Your task to perform on an android device: Open sound settings Image 0: 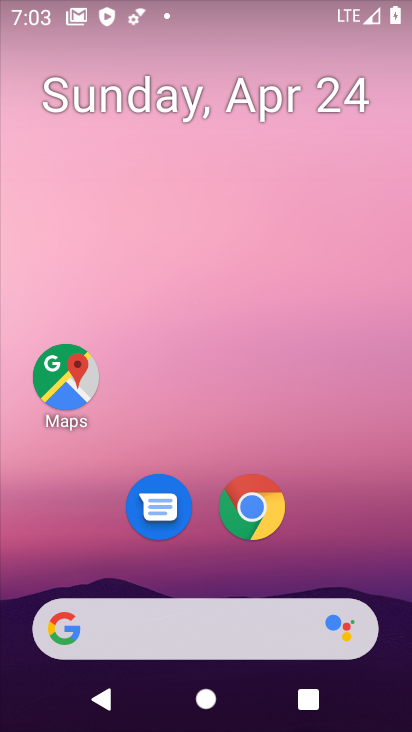
Step 0: drag from (311, 287) to (303, 32)
Your task to perform on an android device: Open sound settings Image 1: 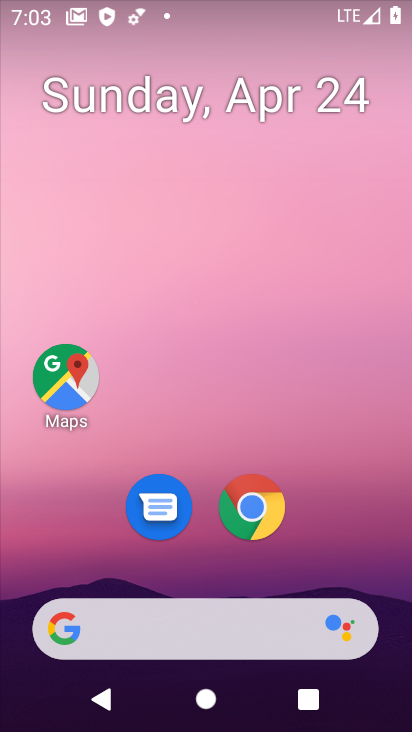
Step 1: drag from (332, 502) to (308, 58)
Your task to perform on an android device: Open sound settings Image 2: 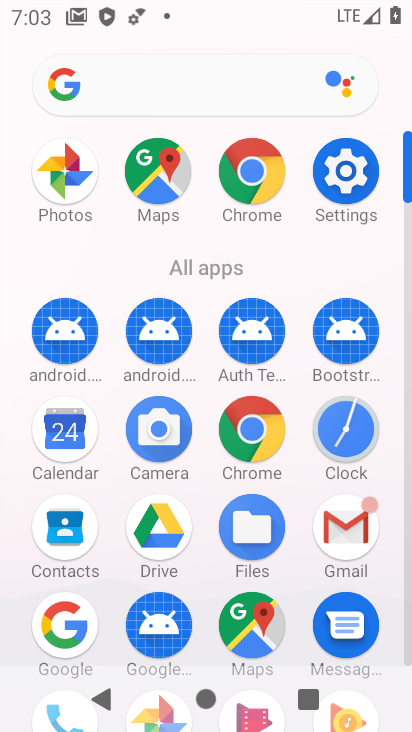
Step 2: click (356, 173)
Your task to perform on an android device: Open sound settings Image 3: 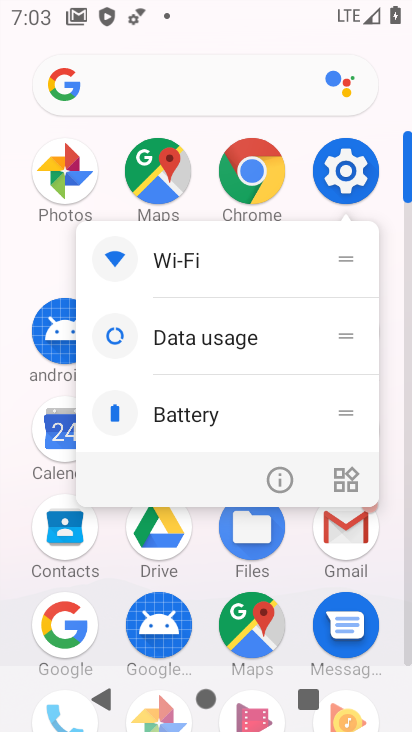
Step 3: click (356, 173)
Your task to perform on an android device: Open sound settings Image 4: 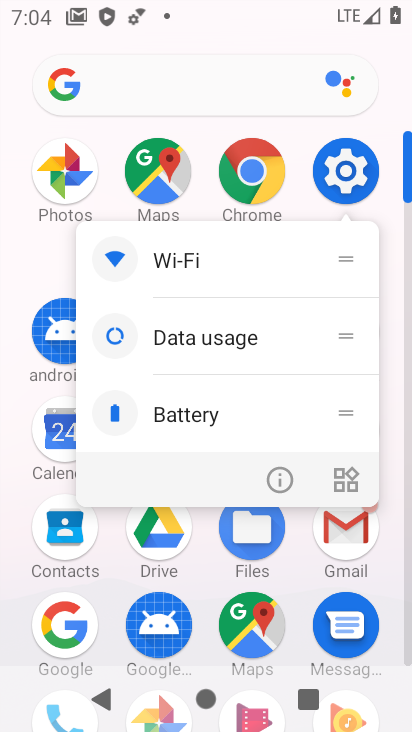
Step 4: click (356, 173)
Your task to perform on an android device: Open sound settings Image 5: 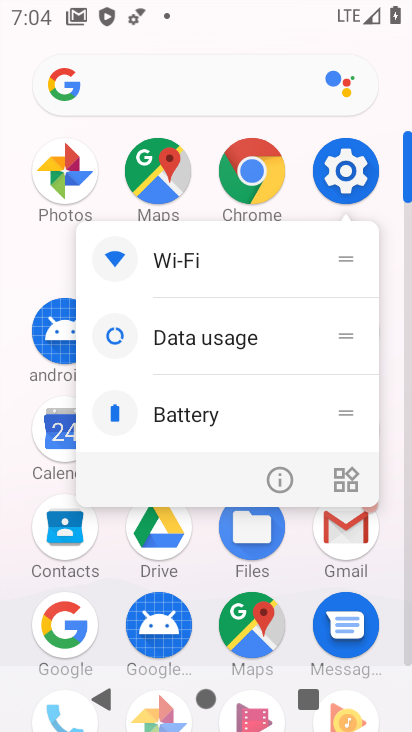
Step 5: click (356, 173)
Your task to perform on an android device: Open sound settings Image 6: 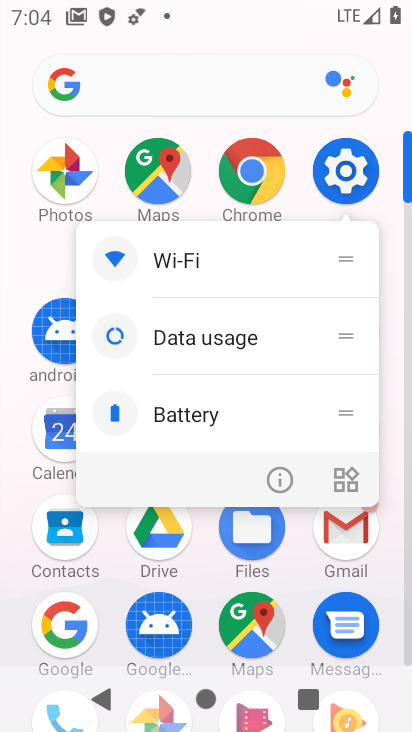
Step 6: click (356, 173)
Your task to perform on an android device: Open sound settings Image 7: 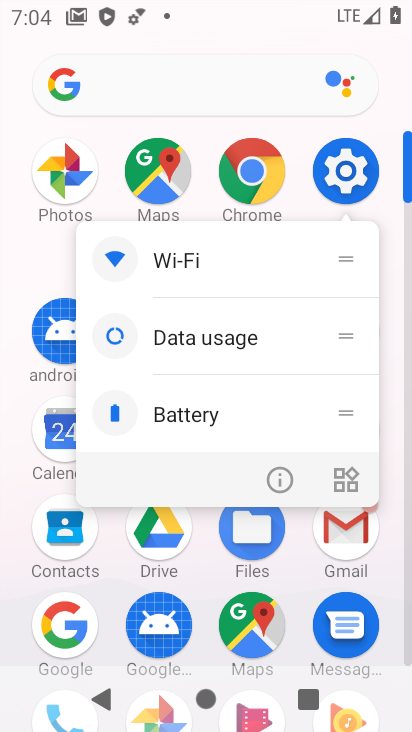
Step 7: click (346, 182)
Your task to perform on an android device: Open sound settings Image 8: 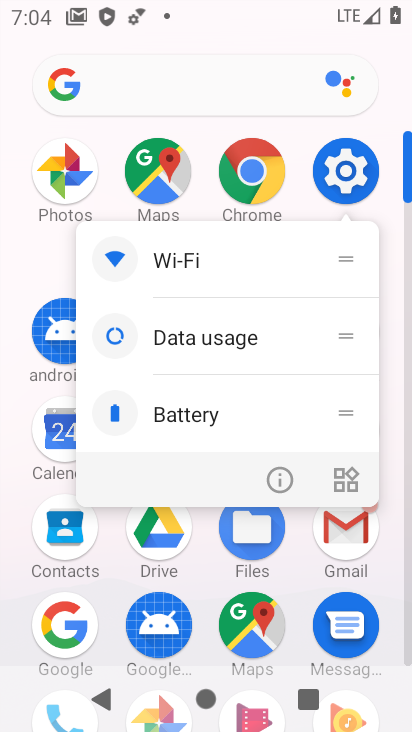
Step 8: click (346, 182)
Your task to perform on an android device: Open sound settings Image 9: 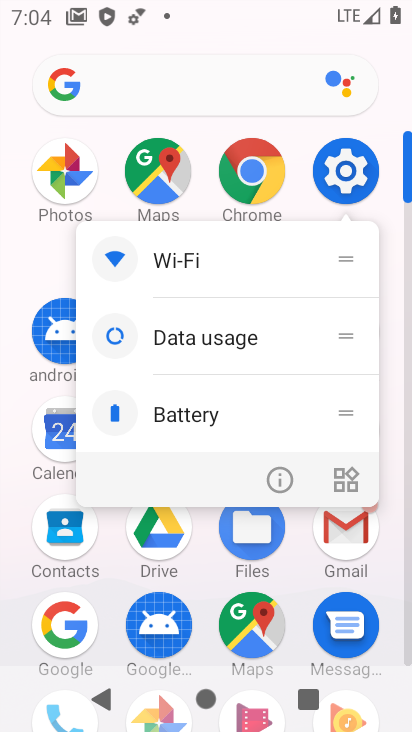
Step 9: click (346, 182)
Your task to perform on an android device: Open sound settings Image 10: 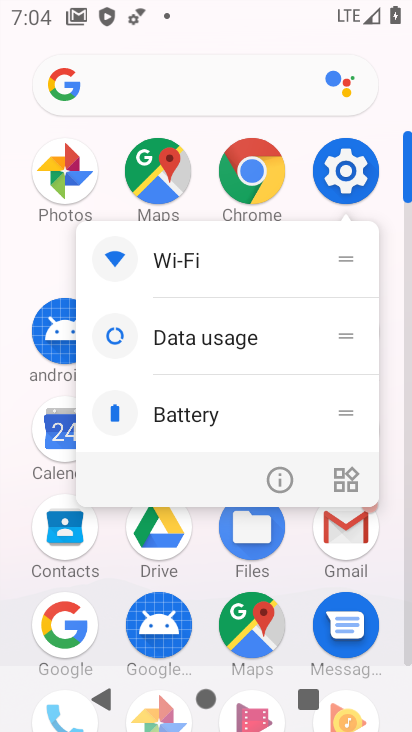
Step 10: click (346, 182)
Your task to perform on an android device: Open sound settings Image 11: 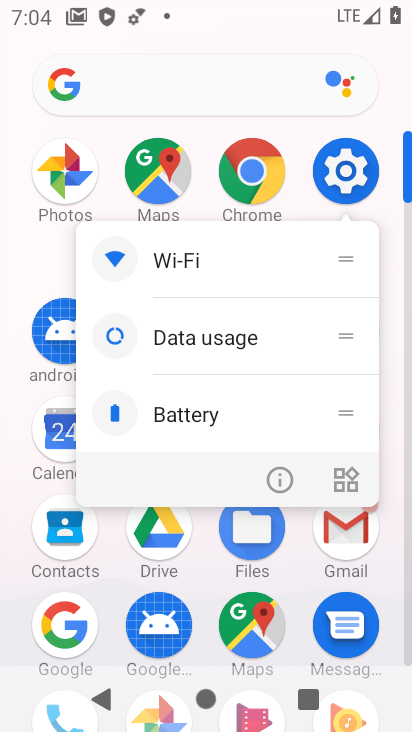
Step 11: click (346, 182)
Your task to perform on an android device: Open sound settings Image 12: 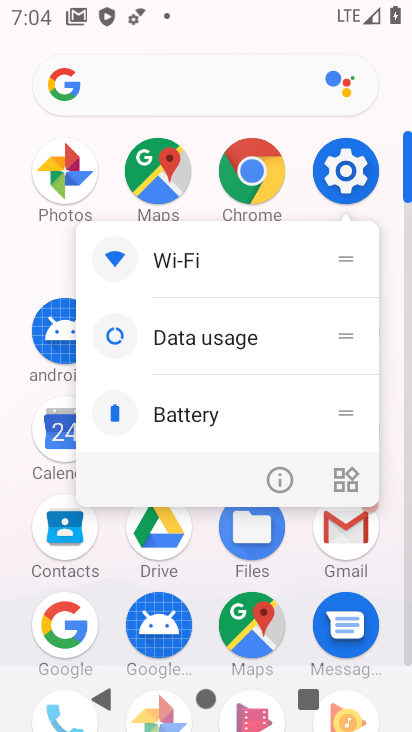
Step 12: click (346, 182)
Your task to perform on an android device: Open sound settings Image 13: 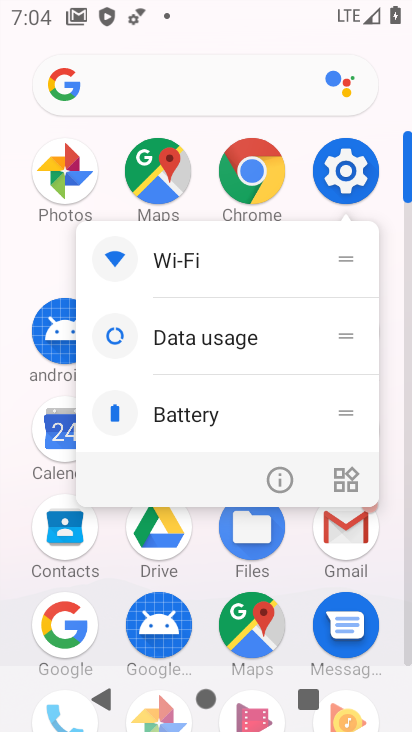
Step 13: click (346, 182)
Your task to perform on an android device: Open sound settings Image 14: 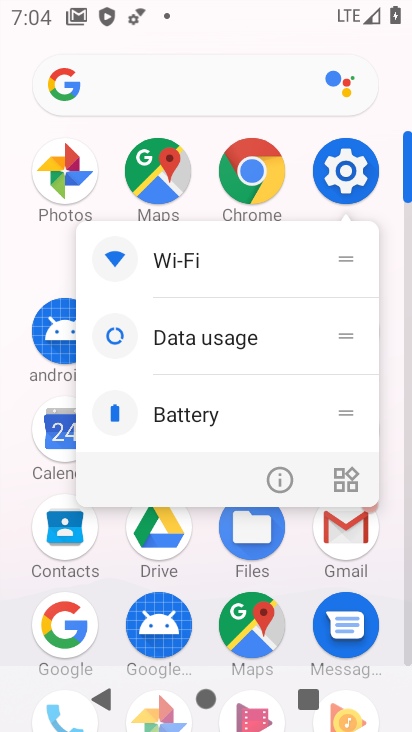
Step 14: click (346, 182)
Your task to perform on an android device: Open sound settings Image 15: 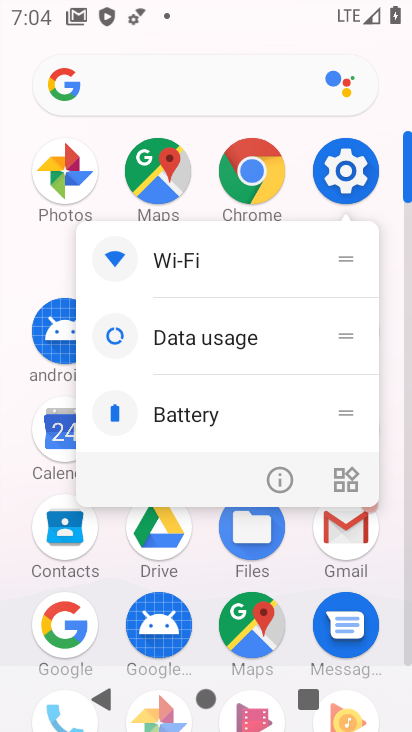
Step 15: click (346, 182)
Your task to perform on an android device: Open sound settings Image 16: 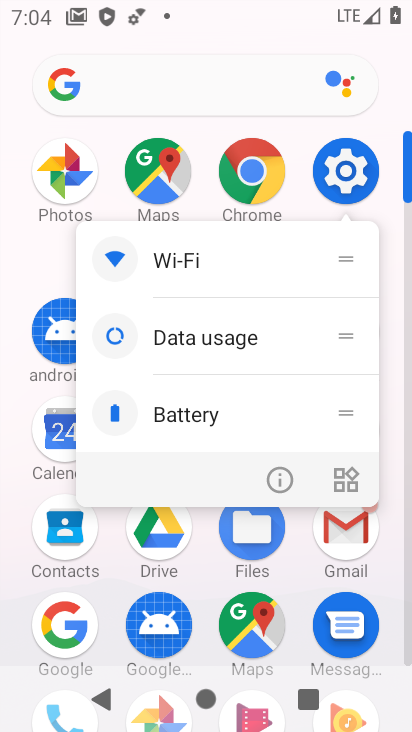
Step 16: click (346, 182)
Your task to perform on an android device: Open sound settings Image 17: 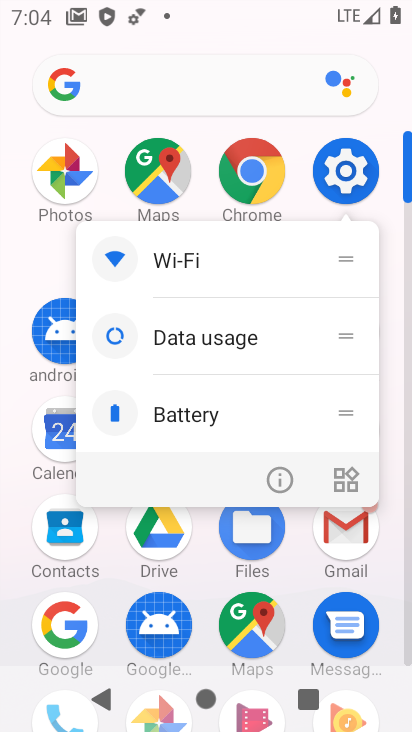
Step 17: click (348, 171)
Your task to perform on an android device: Open sound settings Image 18: 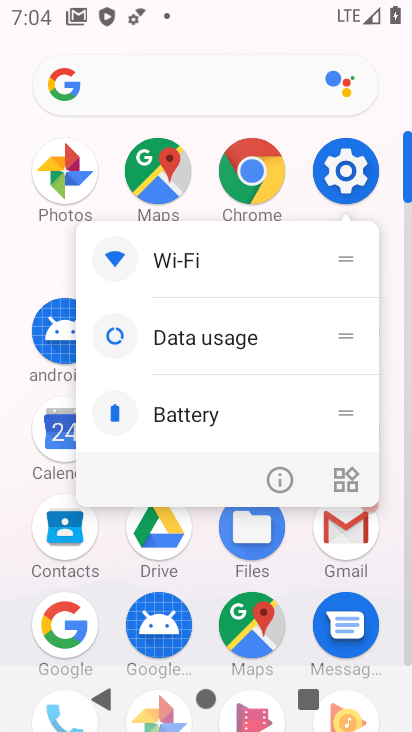
Step 18: click (348, 171)
Your task to perform on an android device: Open sound settings Image 19: 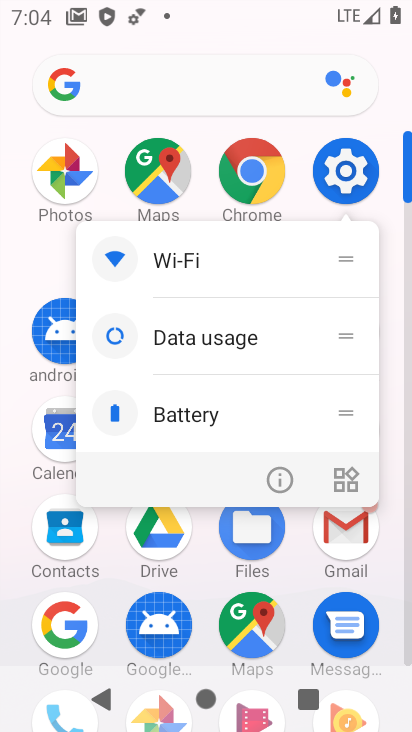
Step 19: click (348, 171)
Your task to perform on an android device: Open sound settings Image 20: 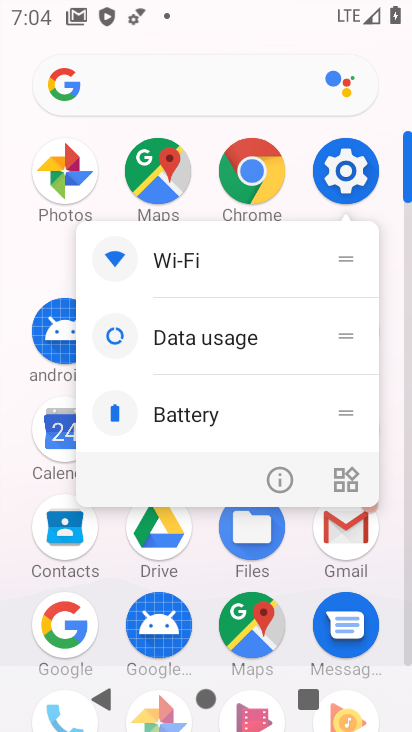
Step 20: click (348, 171)
Your task to perform on an android device: Open sound settings Image 21: 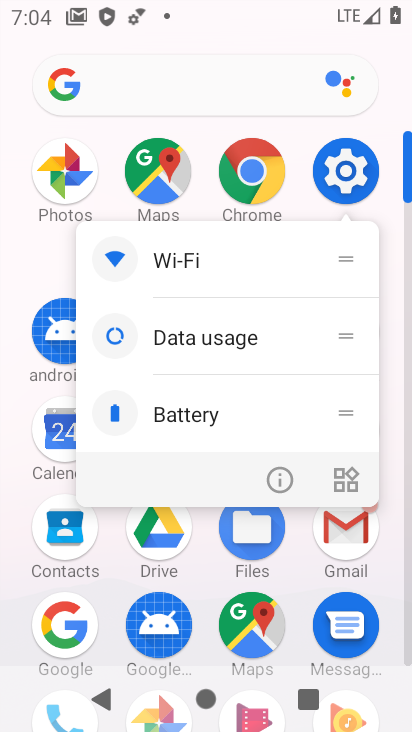
Step 21: click (348, 171)
Your task to perform on an android device: Open sound settings Image 22: 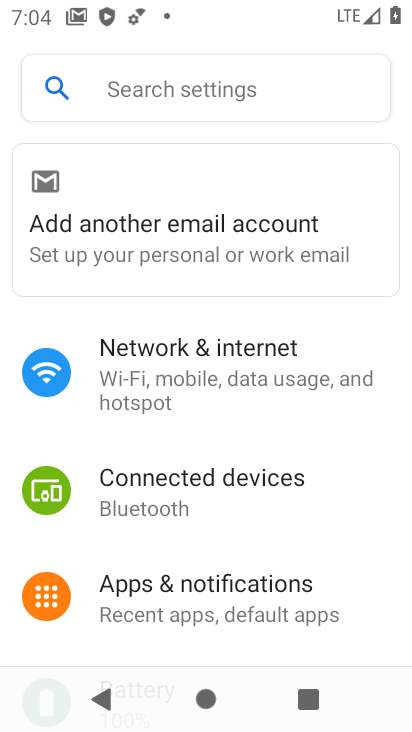
Step 22: drag from (151, 531) to (97, 184)
Your task to perform on an android device: Open sound settings Image 23: 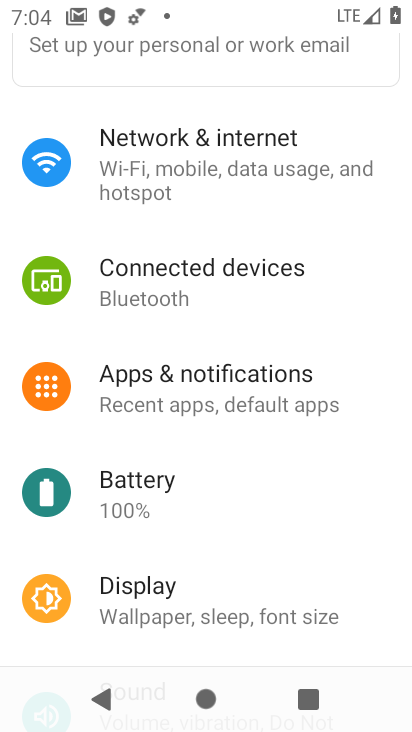
Step 23: drag from (170, 601) to (145, 200)
Your task to perform on an android device: Open sound settings Image 24: 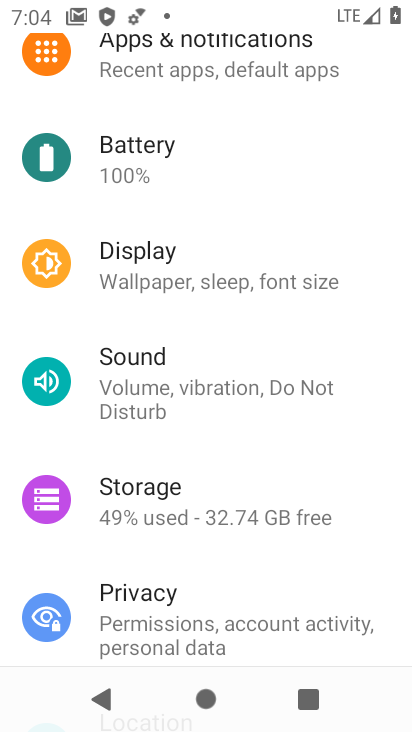
Step 24: click (149, 396)
Your task to perform on an android device: Open sound settings Image 25: 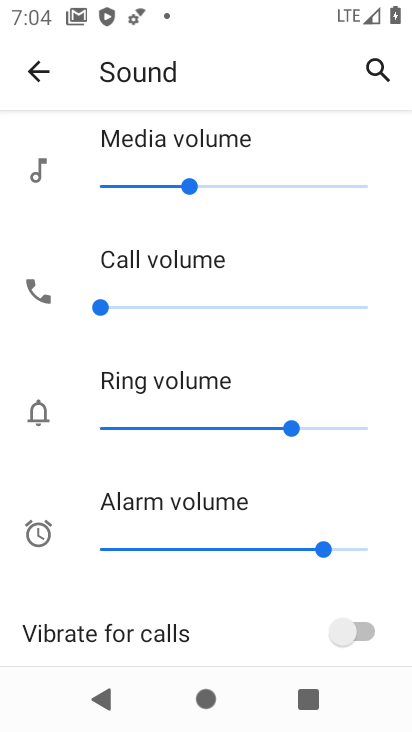
Step 25: task complete